Your task to perform on an android device: visit the assistant section in the google photos Image 0: 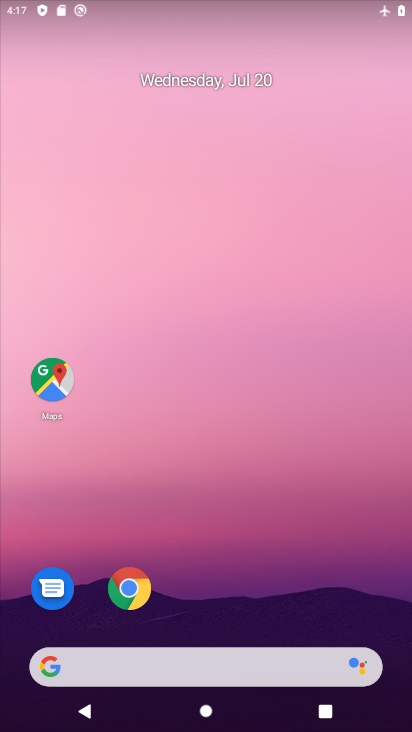
Step 0: press home button
Your task to perform on an android device: visit the assistant section in the google photos Image 1: 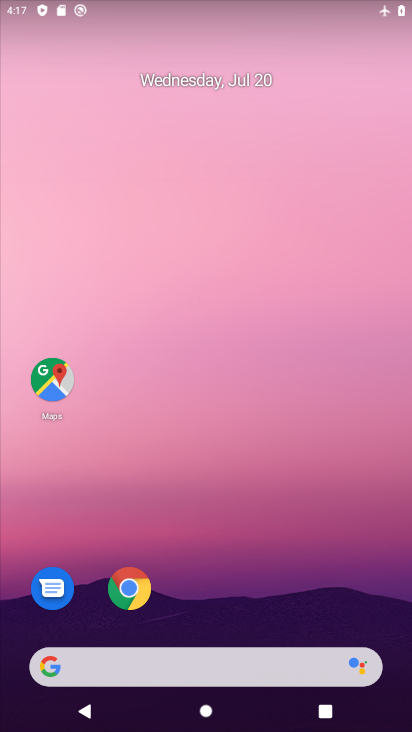
Step 1: drag from (219, 615) to (239, 94)
Your task to perform on an android device: visit the assistant section in the google photos Image 2: 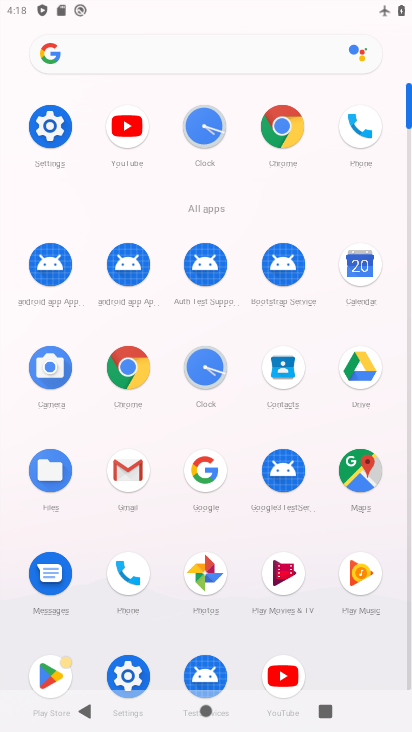
Step 2: click (195, 566)
Your task to perform on an android device: visit the assistant section in the google photos Image 3: 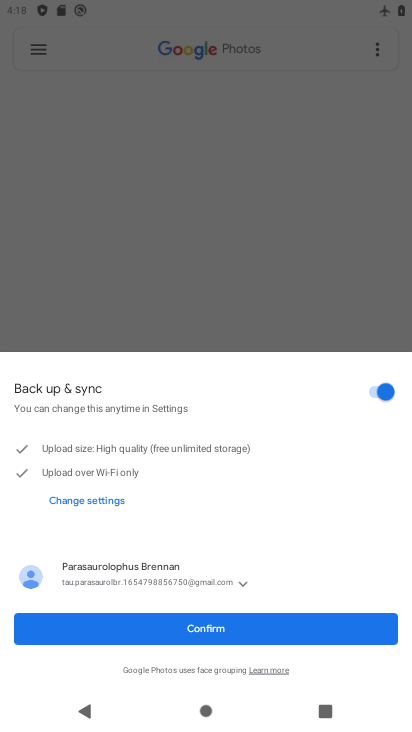
Step 3: click (188, 279)
Your task to perform on an android device: visit the assistant section in the google photos Image 4: 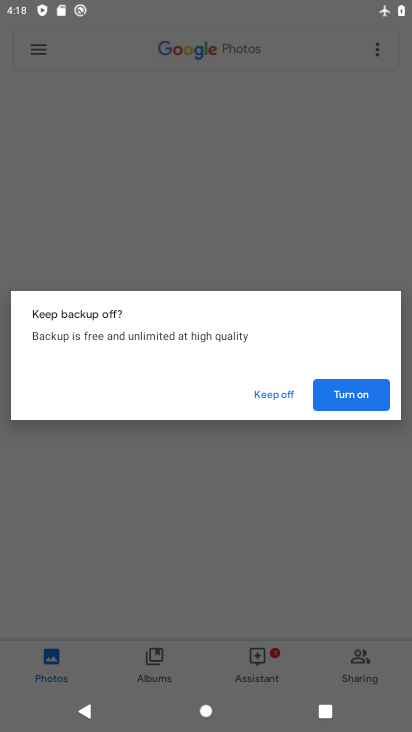
Step 4: click (283, 397)
Your task to perform on an android device: visit the assistant section in the google photos Image 5: 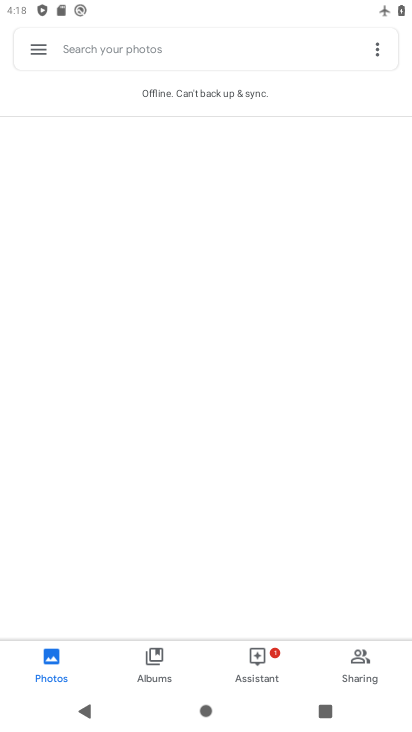
Step 5: click (259, 653)
Your task to perform on an android device: visit the assistant section in the google photos Image 6: 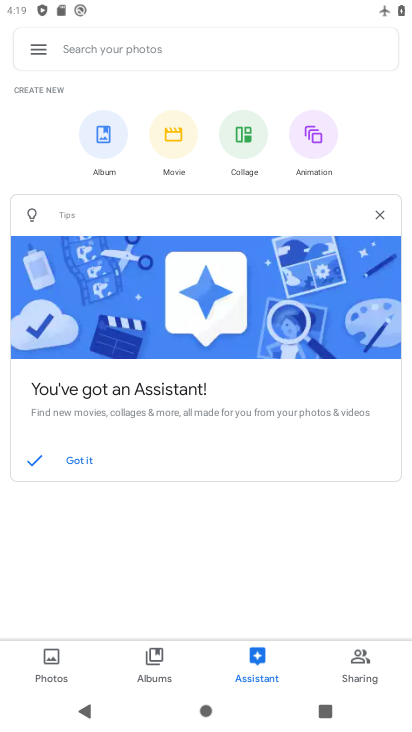
Step 6: task complete